Your task to perform on an android device: turn on airplane mode Image 0: 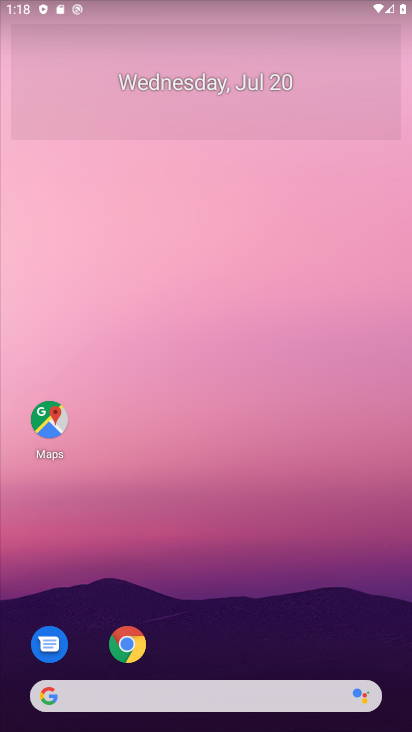
Step 0: press home button
Your task to perform on an android device: turn on airplane mode Image 1: 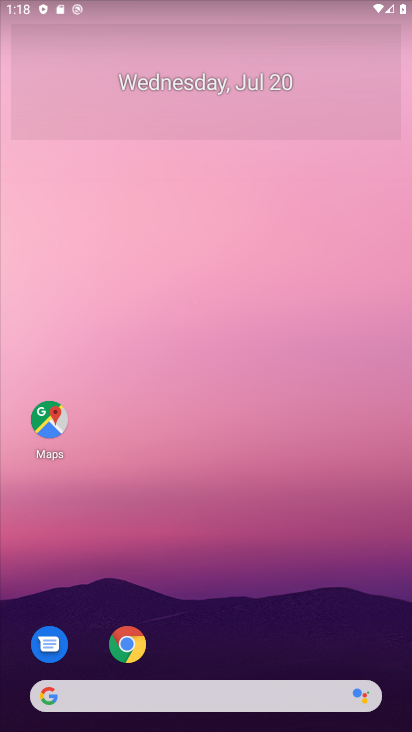
Step 1: drag from (288, 632) to (307, 158)
Your task to perform on an android device: turn on airplane mode Image 2: 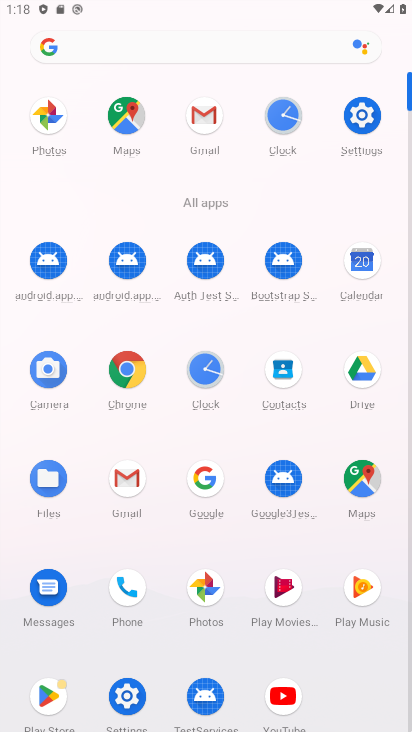
Step 2: click (368, 120)
Your task to perform on an android device: turn on airplane mode Image 3: 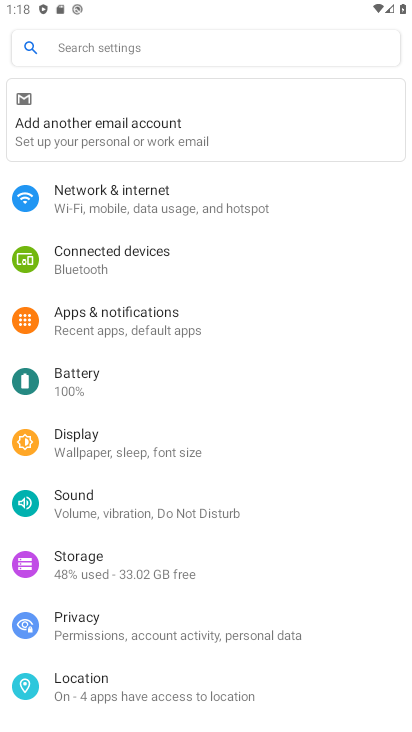
Step 3: click (173, 203)
Your task to perform on an android device: turn on airplane mode Image 4: 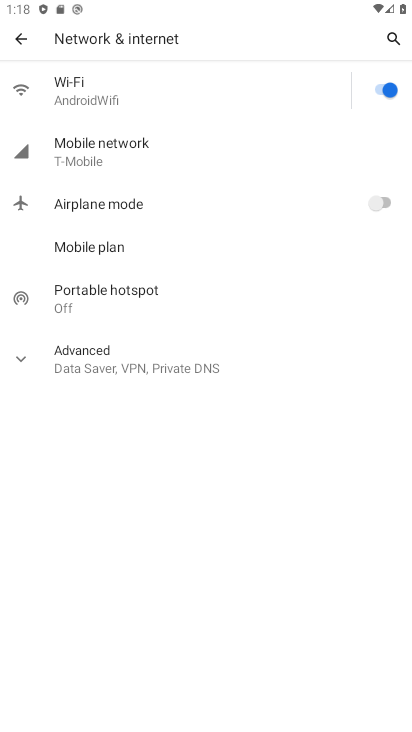
Step 4: click (380, 198)
Your task to perform on an android device: turn on airplane mode Image 5: 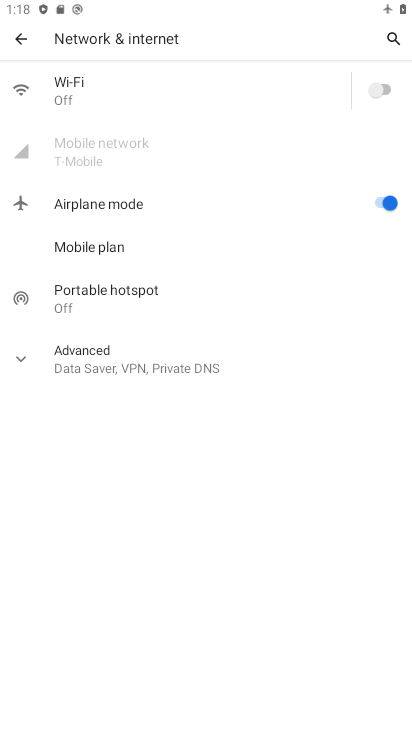
Step 5: task complete